Your task to perform on an android device: Open calendar and show me the second week of next month Image 0: 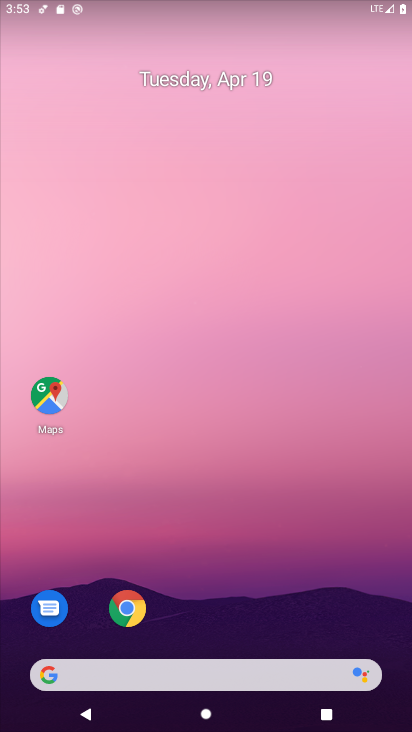
Step 0: drag from (333, 640) to (313, 178)
Your task to perform on an android device: Open calendar and show me the second week of next month Image 1: 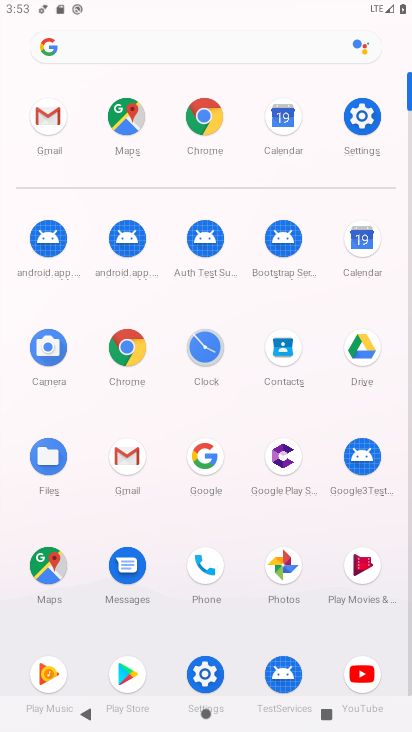
Step 1: click (358, 238)
Your task to perform on an android device: Open calendar and show me the second week of next month Image 2: 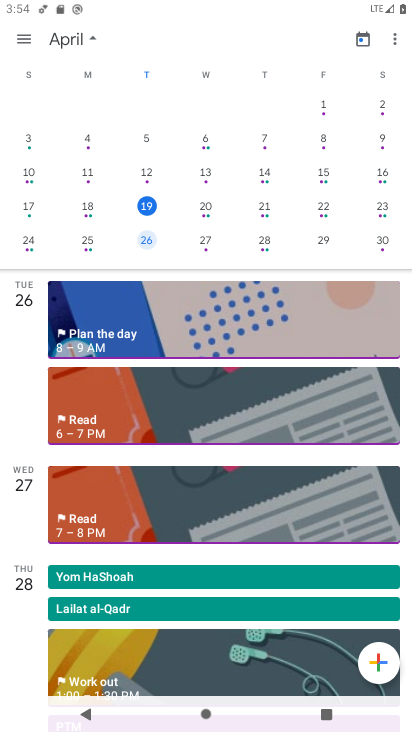
Step 2: drag from (384, 170) to (30, 135)
Your task to perform on an android device: Open calendar and show me the second week of next month Image 3: 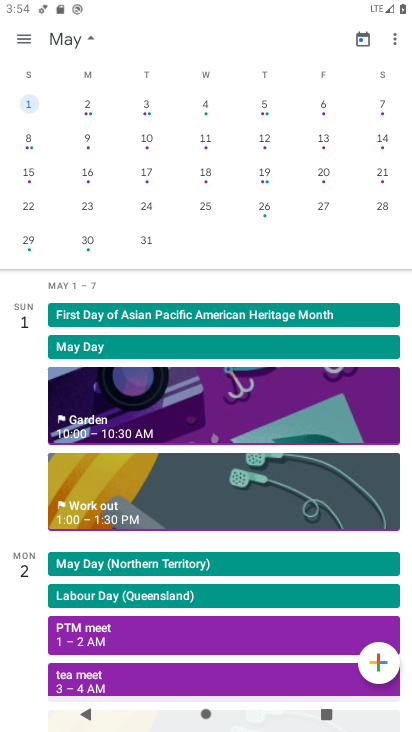
Step 3: click (85, 135)
Your task to perform on an android device: Open calendar and show me the second week of next month Image 4: 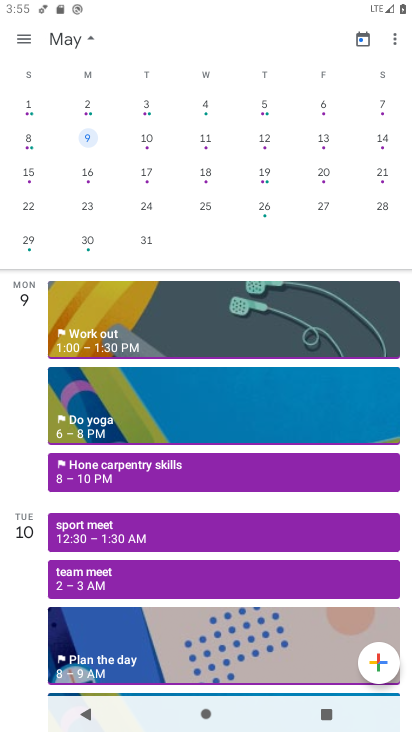
Step 4: task complete